Your task to perform on an android device: What's on my calendar tomorrow? Image 0: 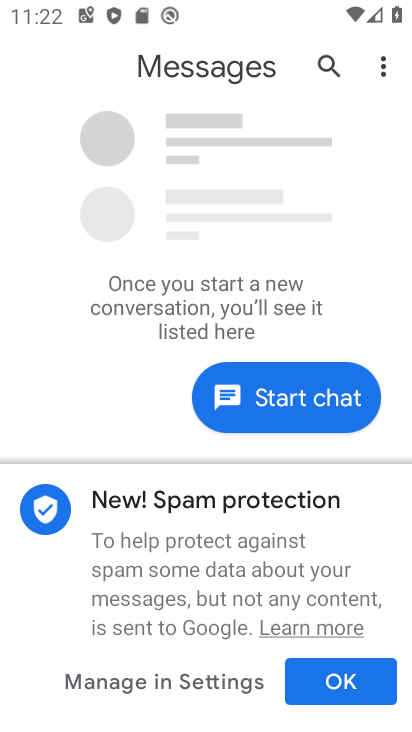
Step 0: press home button
Your task to perform on an android device: What's on my calendar tomorrow? Image 1: 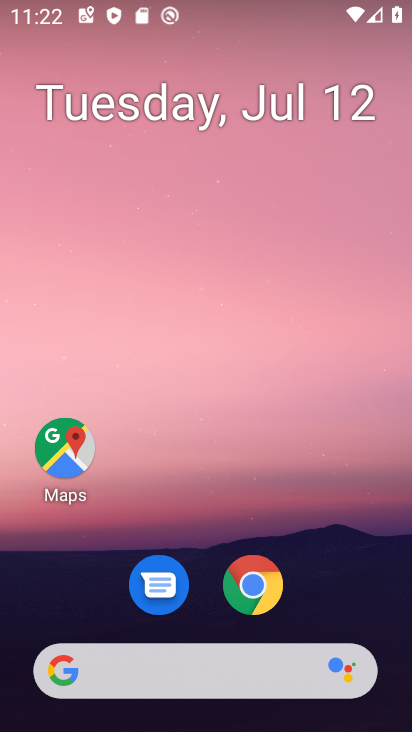
Step 1: drag from (246, 495) to (217, 2)
Your task to perform on an android device: What's on my calendar tomorrow? Image 2: 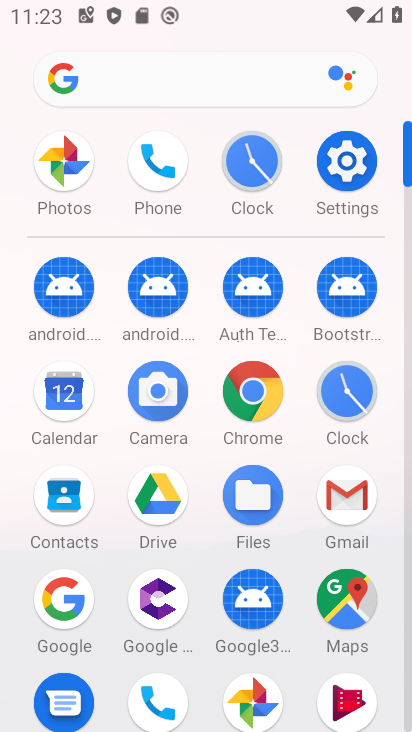
Step 2: click (63, 382)
Your task to perform on an android device: What's on my calendar tomorrow? Image 3: 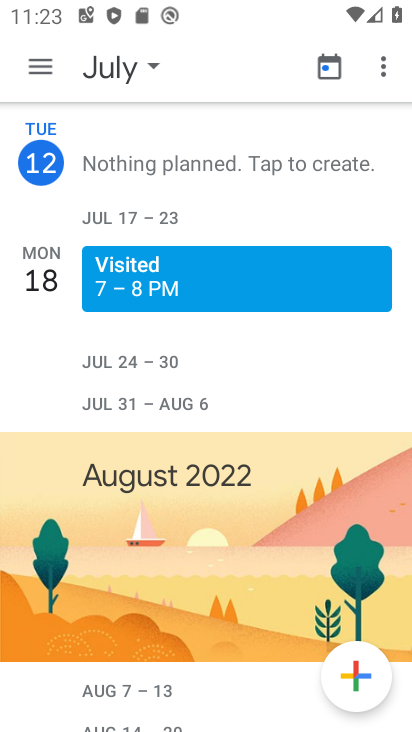
Step 3: task complete